Your task to perform on an android device: turn off priority inbox in the gmail app Image 0: 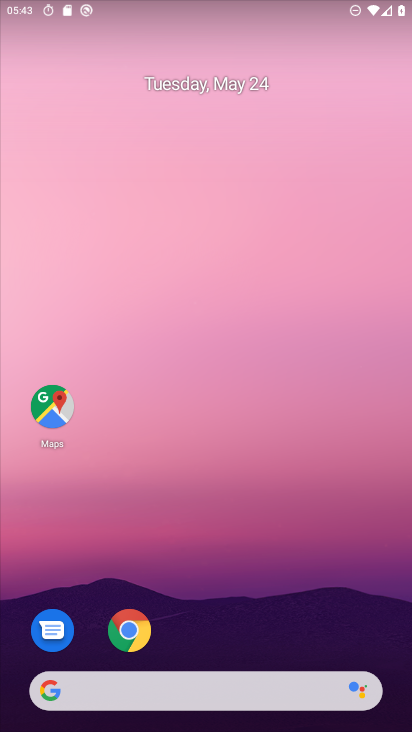
Step 0: drag from (188, 654) to (230, 8)
Your task to perform on an android device: turn off priority inbox in the gmail app Image 1: 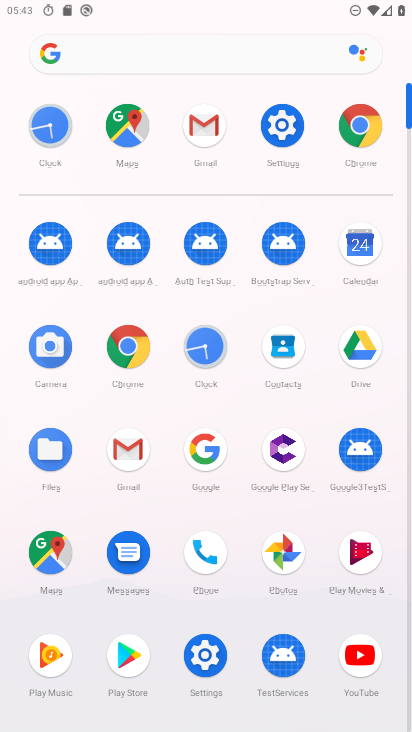
Step 1: click (207, 119)
Your task to perform on an android device: turn off priority inbox in the gmail app Image 2: 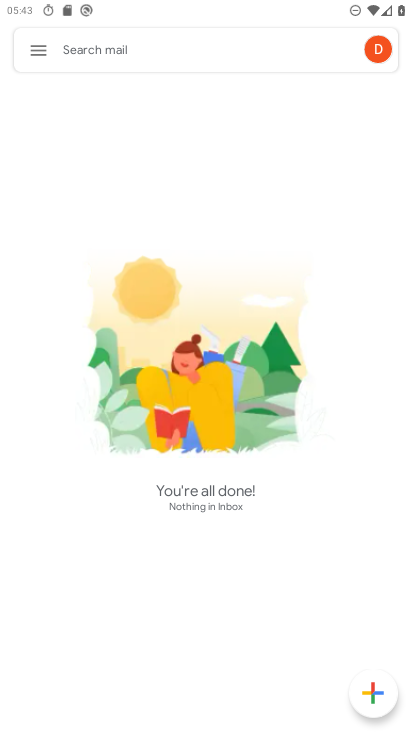
Step 2: click (49, 54)
Your task to perform on an android device: turn off priority inbox in the gmail app Image 3: 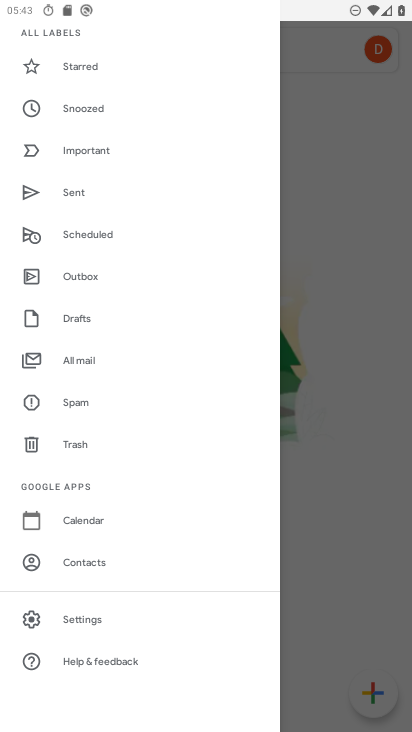
Step 3: click (133, 618)
Your task to perform on an android device: turn off priority inbox in the gmail app Image 4: 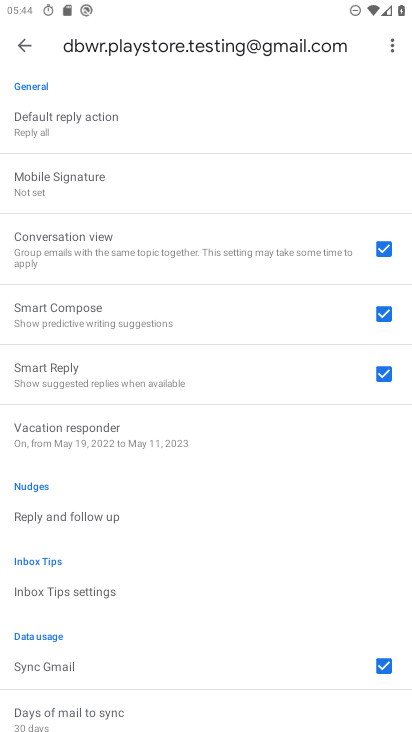
Step 4: drag from (230, 128) to (191, 642)
Your task to perform on an android device: turn off priority inbox in the gmail app Image 5: 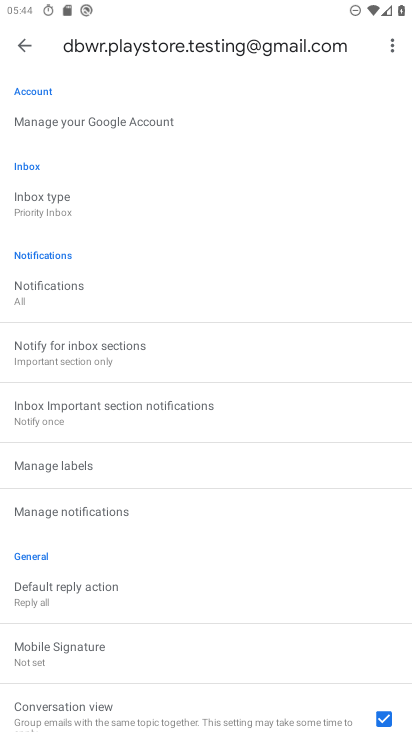
Step 5: click (40, 224)
Your task to perform on an android device: turn off priority inbox in the gmail app Image 6: 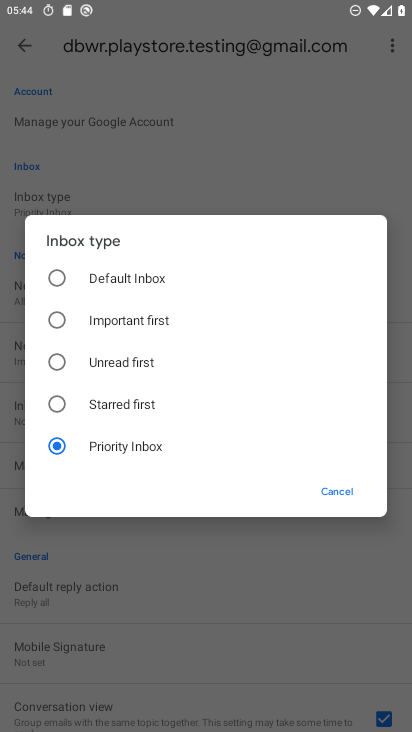
Step 6: click (187, 327)
Your task to perform on an android device: turn off priority inbox in the gmail app Image 7: 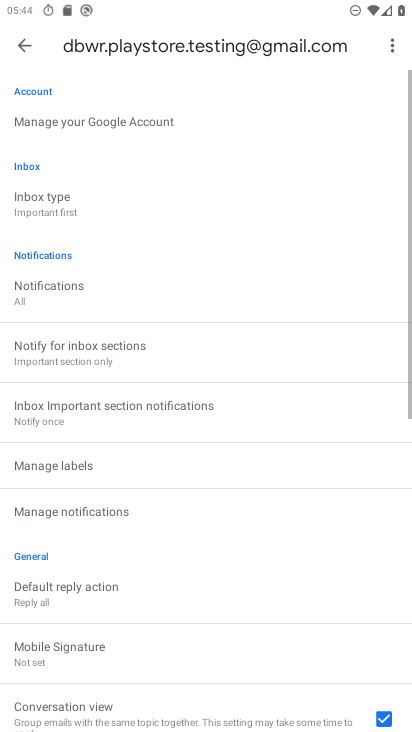
Step 7: task complete